Your task to perform on an android device: change the clock display to analog Image 0: 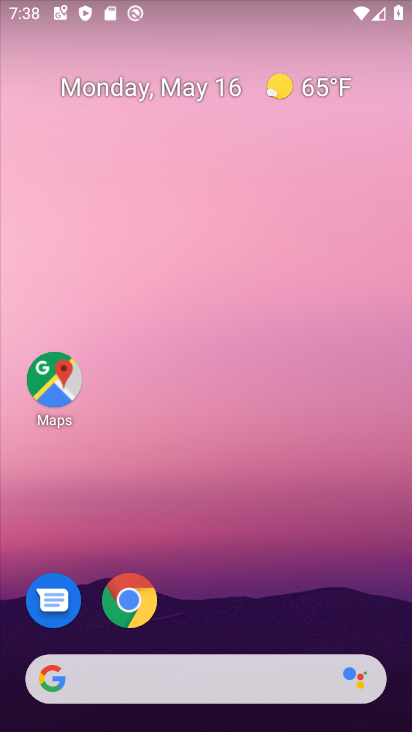
Step 0: drag from (232, 620) to (302, 122)
Your task to perform on an android device: change the clock display to analog Image 1: 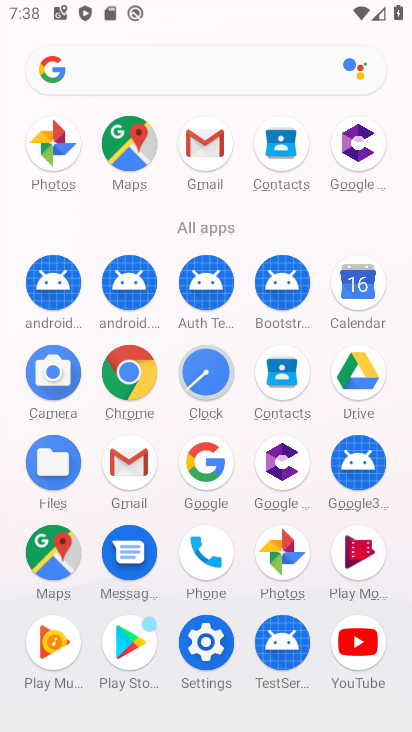
Step 1: click (212, 369)
Your task to perform on an android device: change the clock display to analog Image 2: 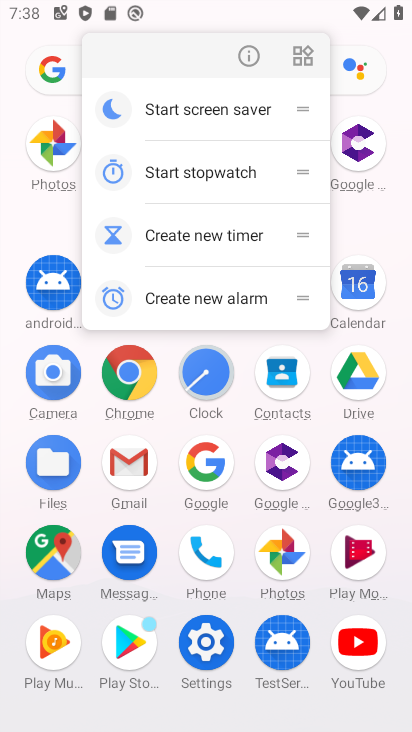
Step 2: click (244, 58)
Your task to perform on an android device: change the clock display to analog Image 3: 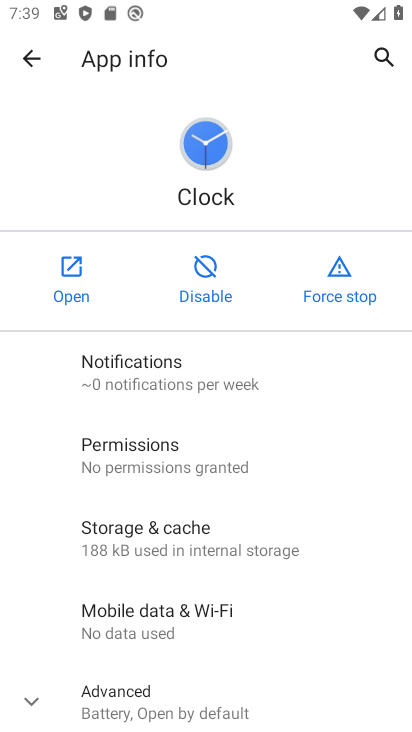
Step 3: click (76, 271)
Your task to perform on an android device: change the clock display to analog Image 4: 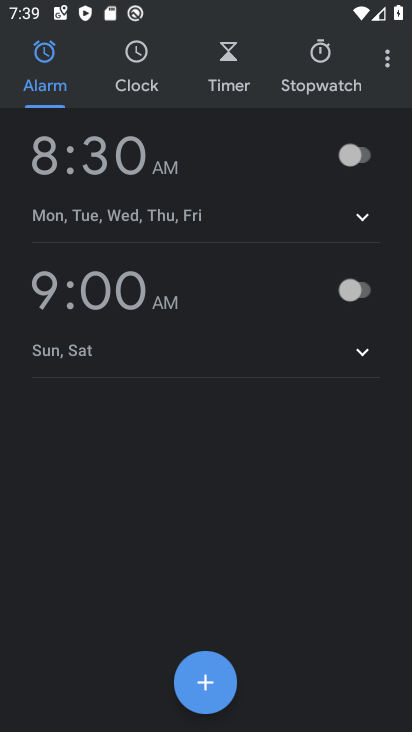
Step 4: click (383, 45)
Your task to perform on an android device: change the clock display to analog Image 5: 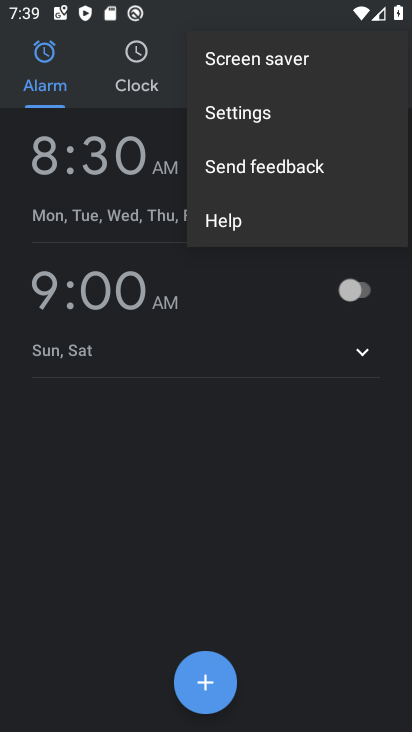
Step 5: click (268, 105)
Your task to perform on an android device: change the clock display to analog Image 6: 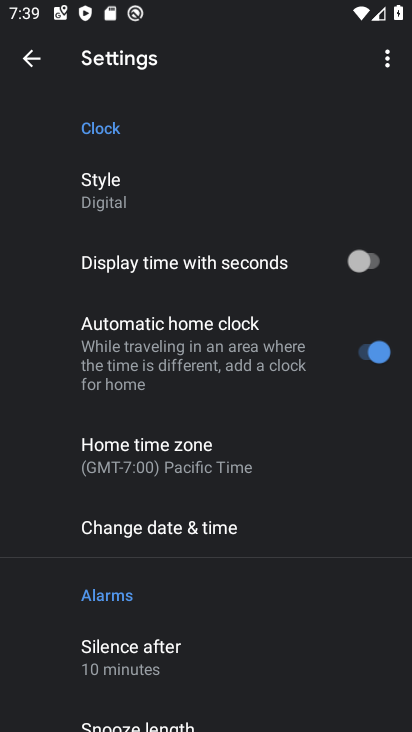
Step 6: click (88, 192)
Your task to perform on an android device: change the clock display to analog Image 7: 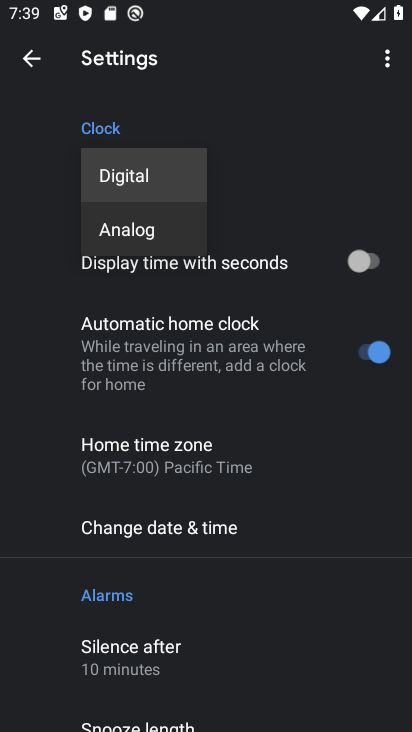
Step 7: click (101, 192)
Your task to perform on an android device: change the clock display to analog Image 8: 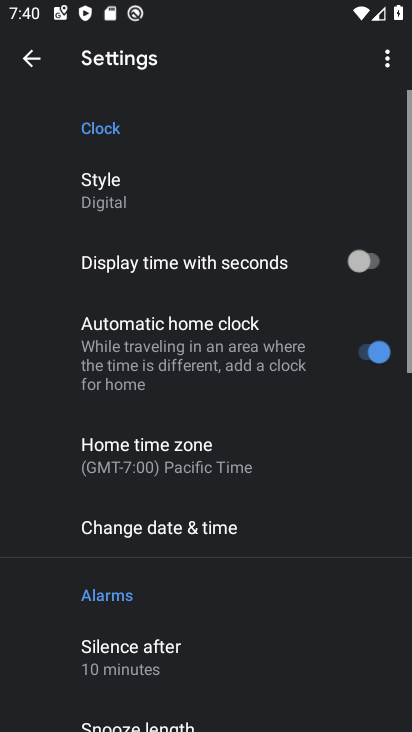
Step 8: click (101, 192)
Your task to perform on an android device: change the clock display to analog Image 9: 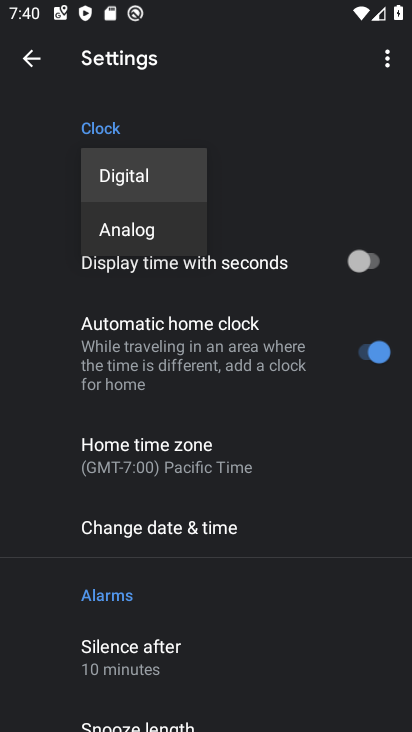
Step 9: click (153, 215)
Your task to perform on an android device: change the clock display to analog Image 10: 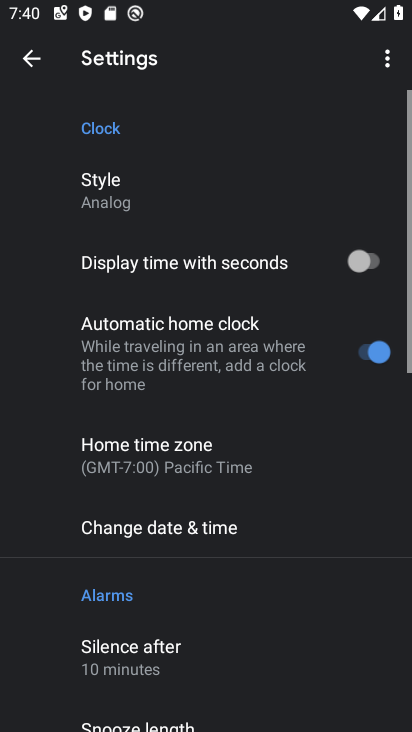
Step 10: task complete